Your task to perform on an android device: Open Chrome and go to settings Image 0: 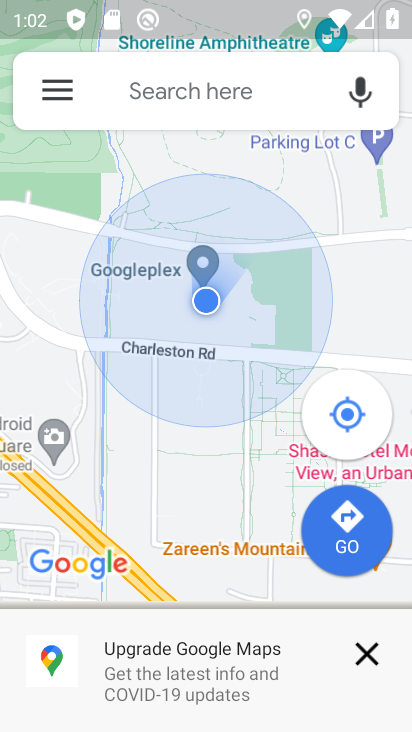
Step 0: press home button
Your task to perform on an android device: Open Chrome and go to settings Image 1: 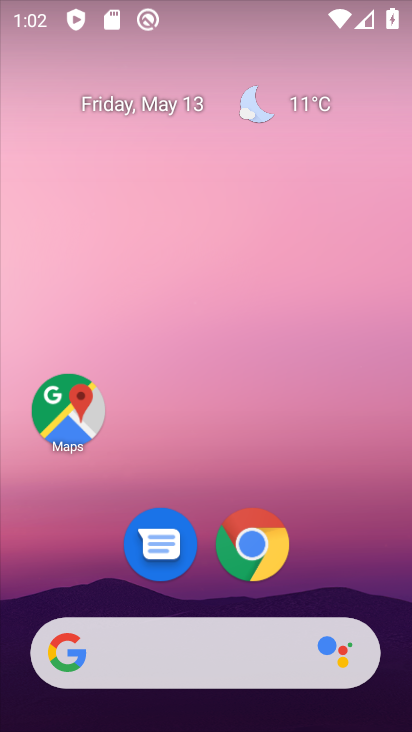
Step 1: click (249, 546)
Your task to perform on an android device: Open Chrome and go to settings Image 2: 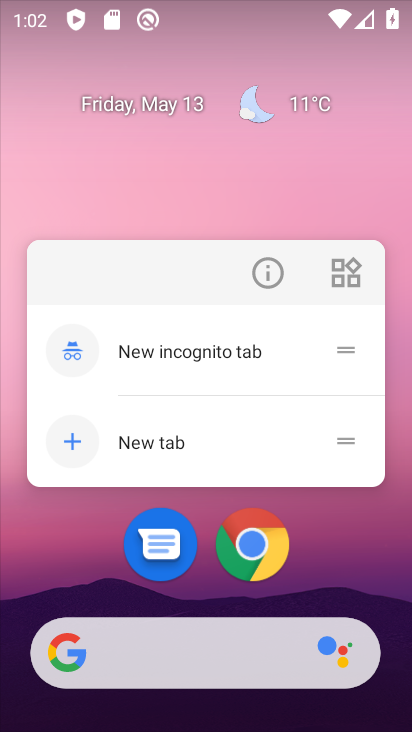
Step 2: click (274, 278)
Your task to perform on an android device: Open Chrome and go to settings Image 3: 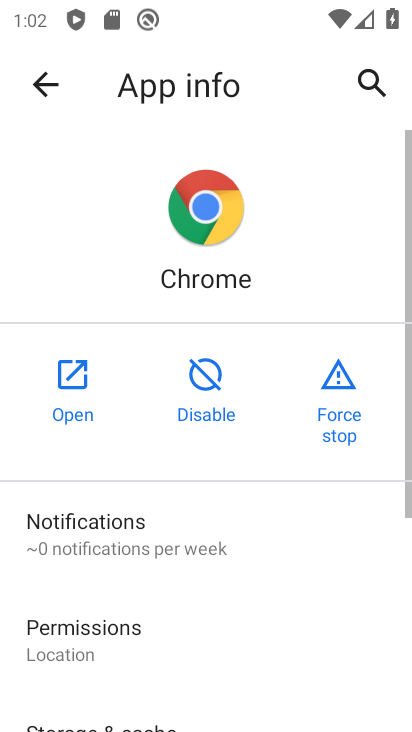
Step 3: click (78, 384)
Your task to perform on an android device: Open Chrome and go to settings Image 4: 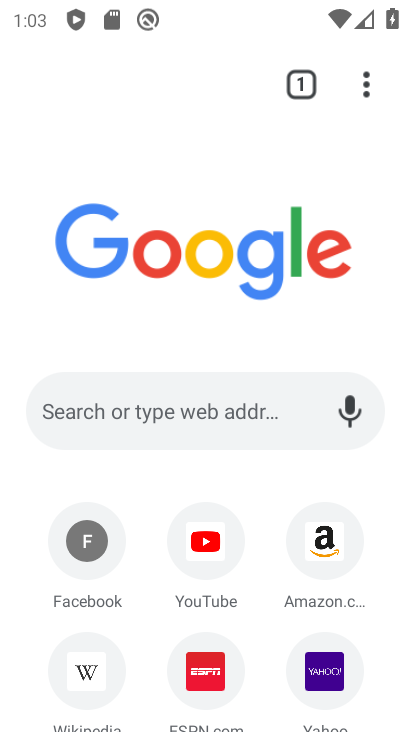
Step 4: click (368, 87)
Your task to perform on an android device: Open Chrome and go to settings Image 5: 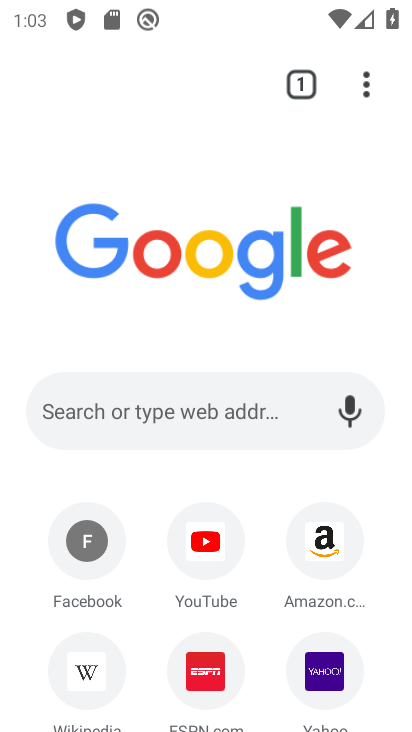
Step 5: click (365, 84)
Your task to perform on an android device: Open Chrome and go to settings Image 6: 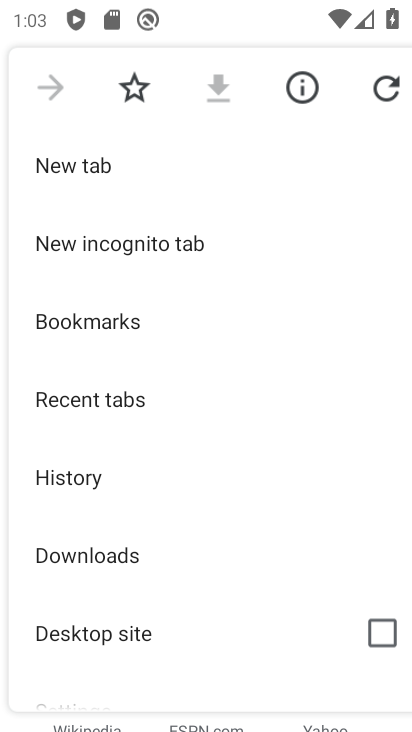
Step 6: drag from (124, 677) to (247, 361)
Your task to perform on an android device: Open Chrome and go to settings Image 7: 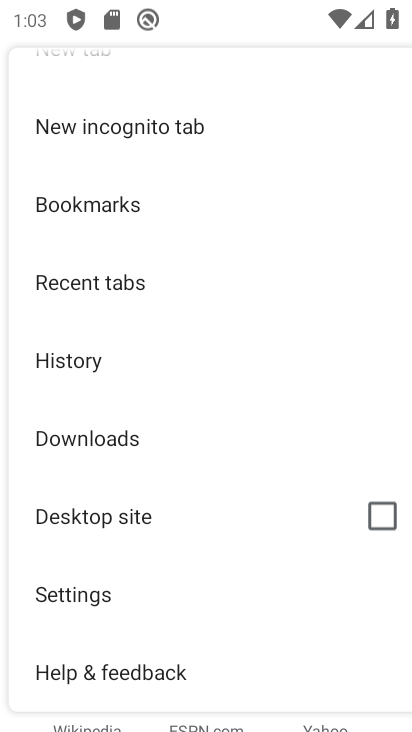
Step 7: click (105, 583)
Your task to perform on an android device: Open Chrome and go to settings Image 8: 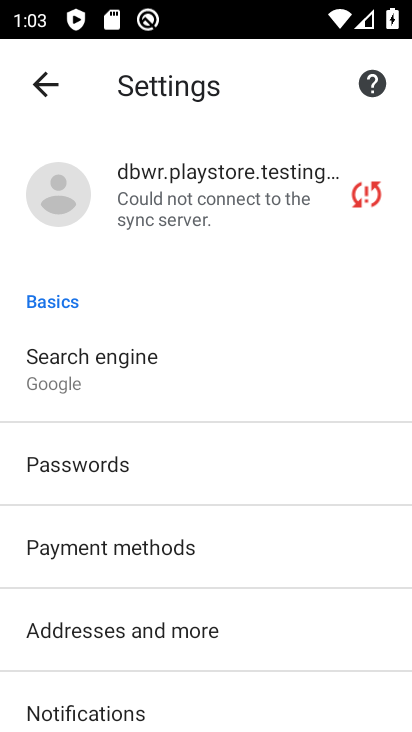
Step 8: task complete